Your task to perform on an android device: Open internet settings Image 0: 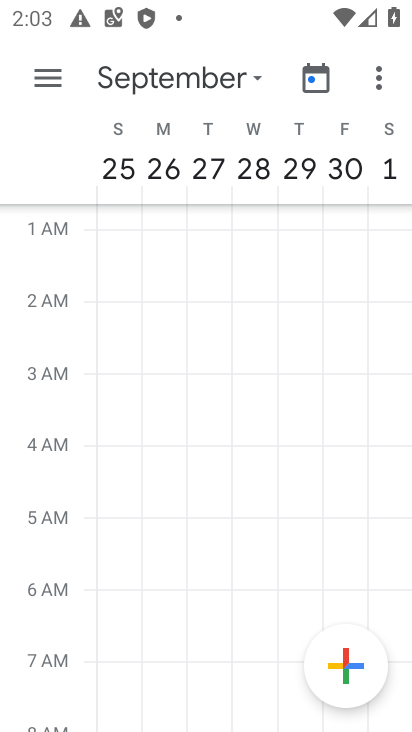
Step 0: press home button
Your task to perform on an android device: Open internet settings Image 1: 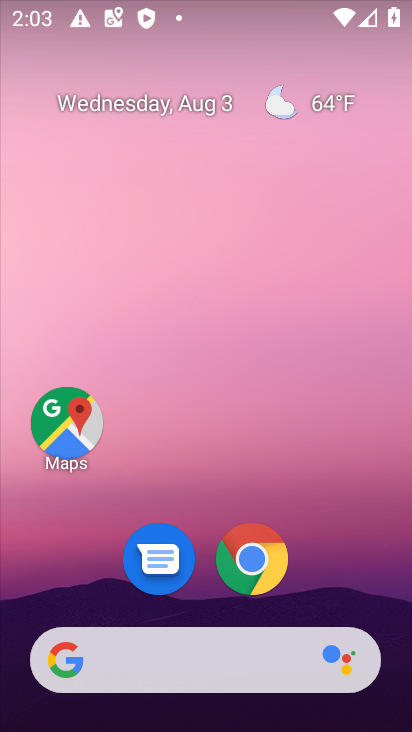
Step 1: drag from (210, 496) to (210, 85)
Your task to perform on an android device: Open internet settings Image 2: 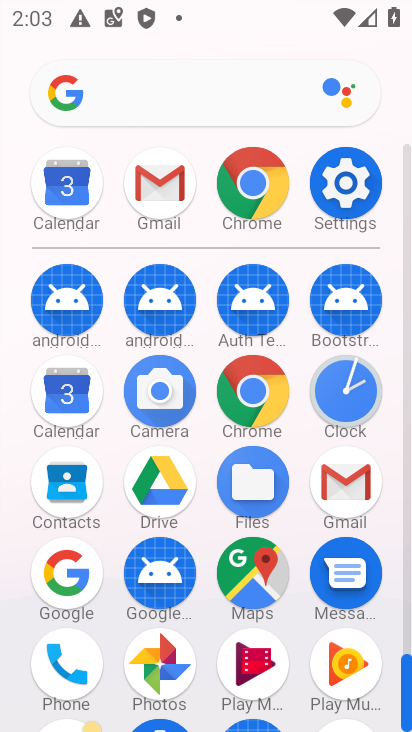
Step 2: click (350, 181)
Your task to perform on an android device: Open internet settings Image 3: 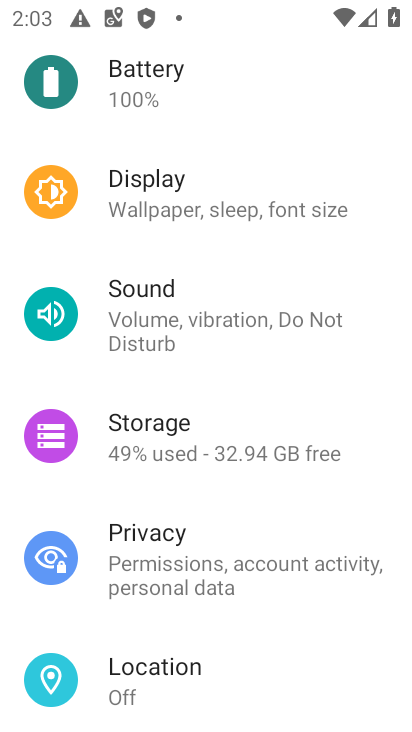
Step 3: drag from (214, 124) to (186, 585)
Your task to perform on an android device: Open internet settings Image 4: 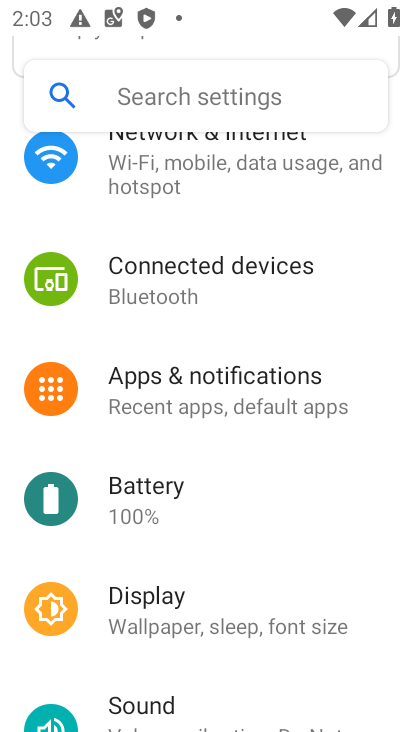
Step 4: drag from (206, 217) to (204, 577)
Your task to perform on an android device: Open internet settings Image 5: 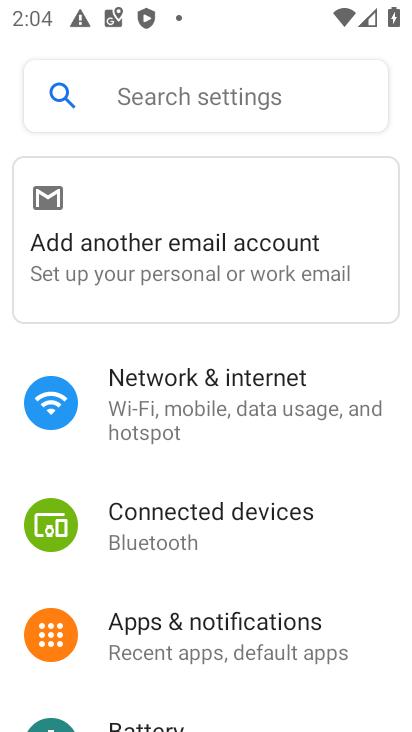
Step 5: click (185, 402)
Your task to perform on an android device: Open internet settings Image 6: 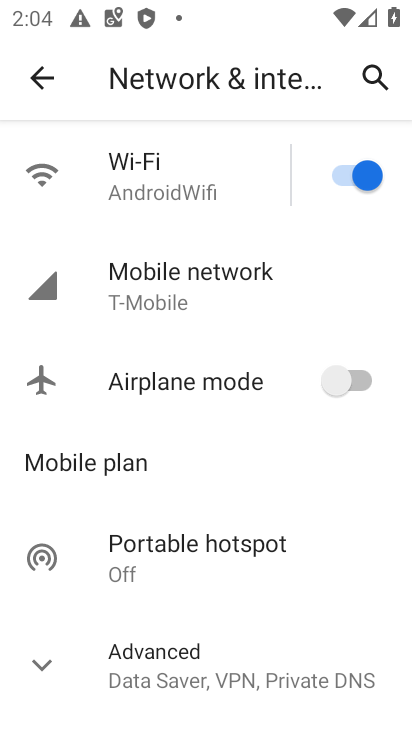
Step 6: click (162, 267)
Your task to perform on an android device: Open internet settings Image 7: 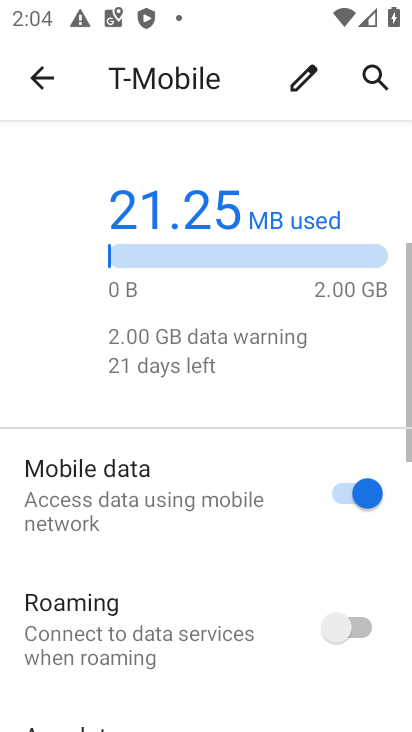
Step 7: task complete